Your task to perform on an android device: turn on wifi Image 0: 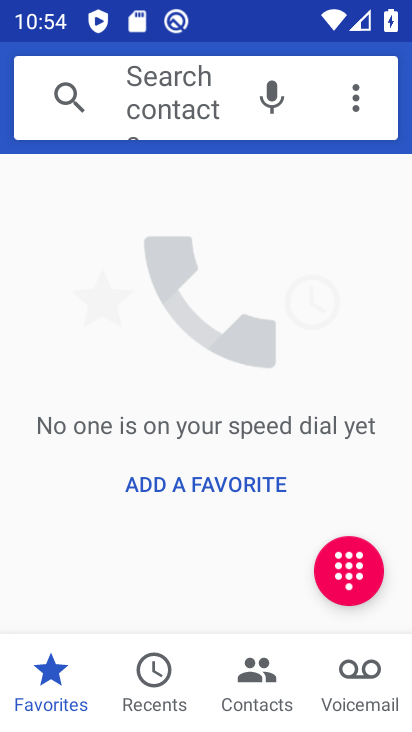
Step 0: press home button
Your task to perform on an android device: turn on wifi Image 1: 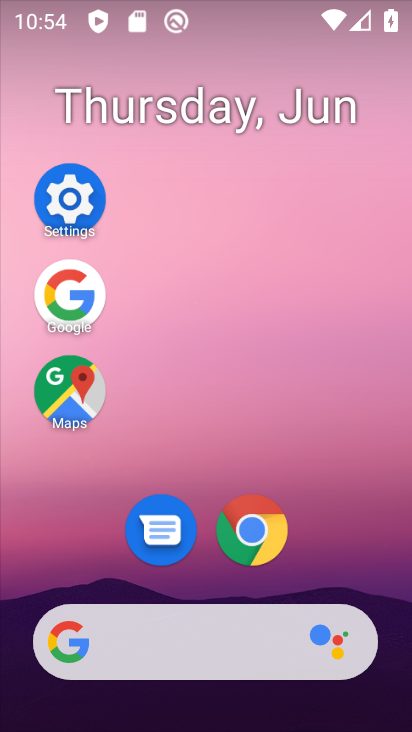
Step 1: click (66, 202)
Your task to perform on an android device: turn on wifi Image 2: 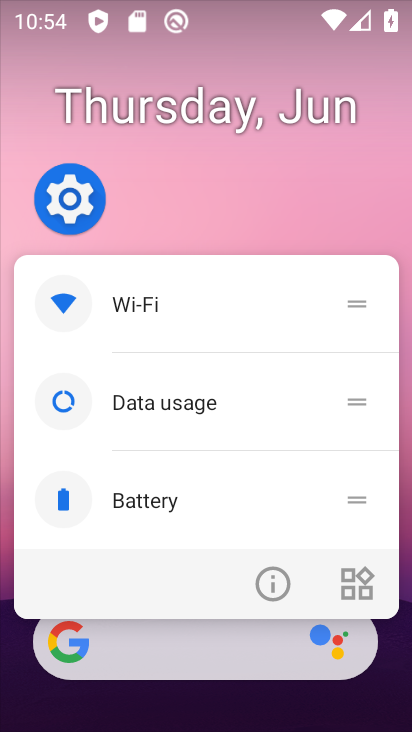
Step 2: click (95, 202)
Your task to perform on an android device: turn on wifi Image 3: 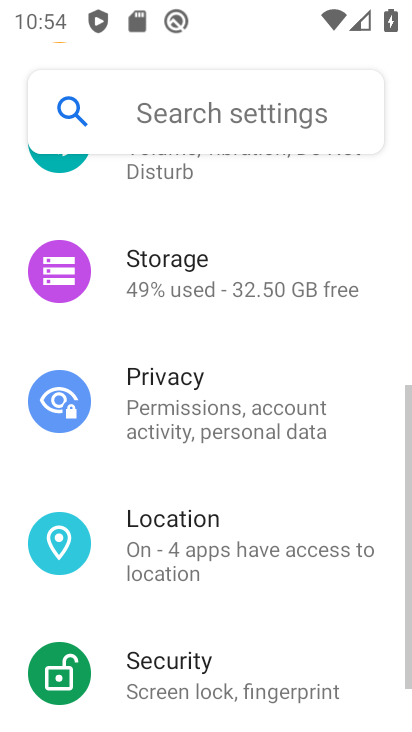
Step 3: drag from (324, 213) to (353, 712)
Your task to perform on an android device: turn on wifi Image 4: 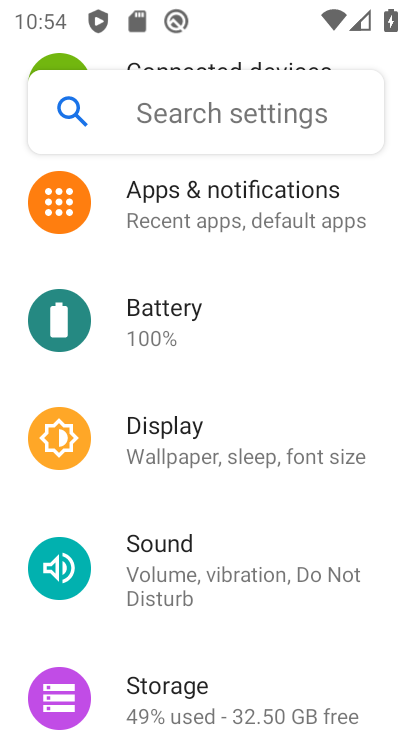
Step 4: drag from (251, 244) to (312, 700)
Your task to perform on an android device: turn on wifi Image 5: 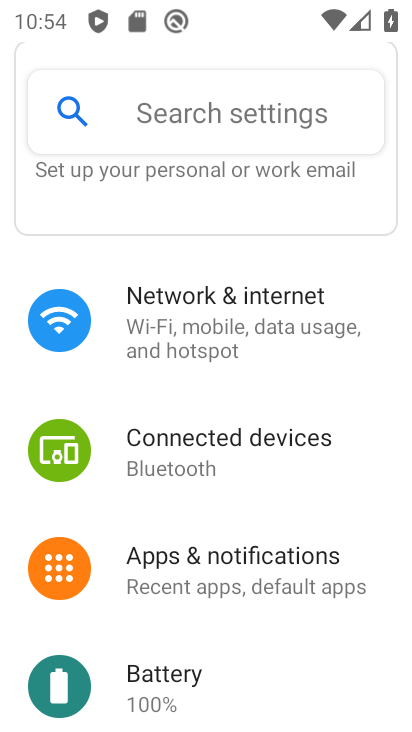
Step 5: click (304, 325)
Your task to perform on an android device: turn on wifi Image 6: 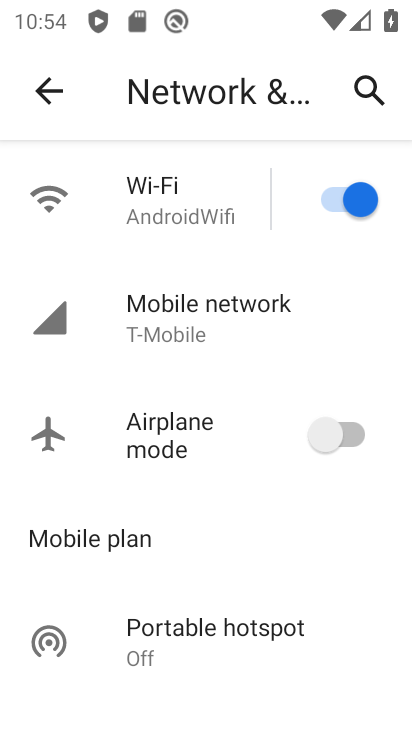
Step 6: task complete